Your task to perform on an android device: Show me the alarms in the clock app Image 0: 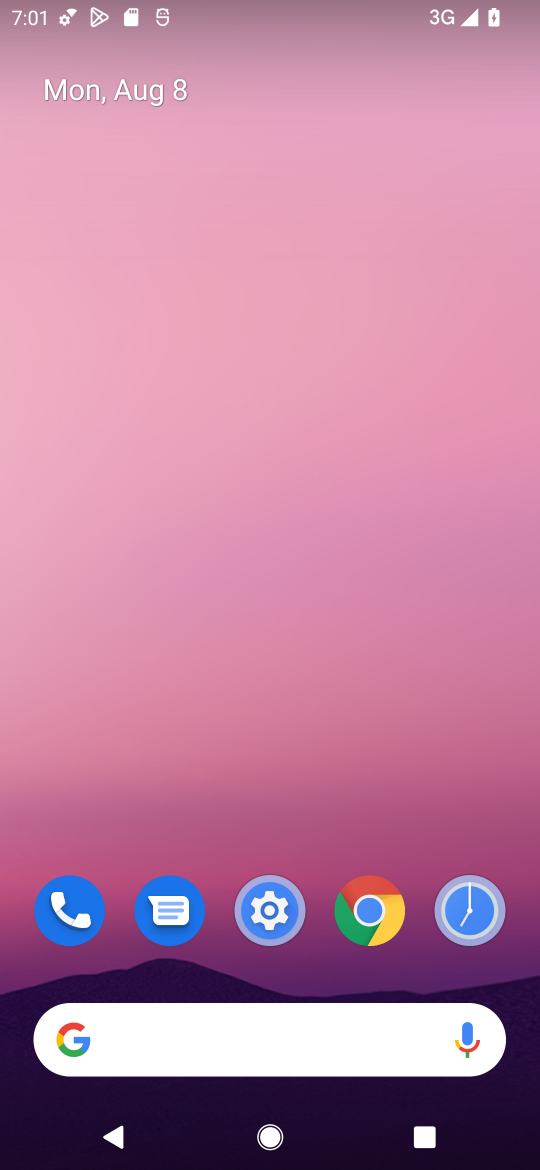
Step 0: click (469, 902)
Your task to perform on an android device: Show me the alarms in the clock app Image 1: 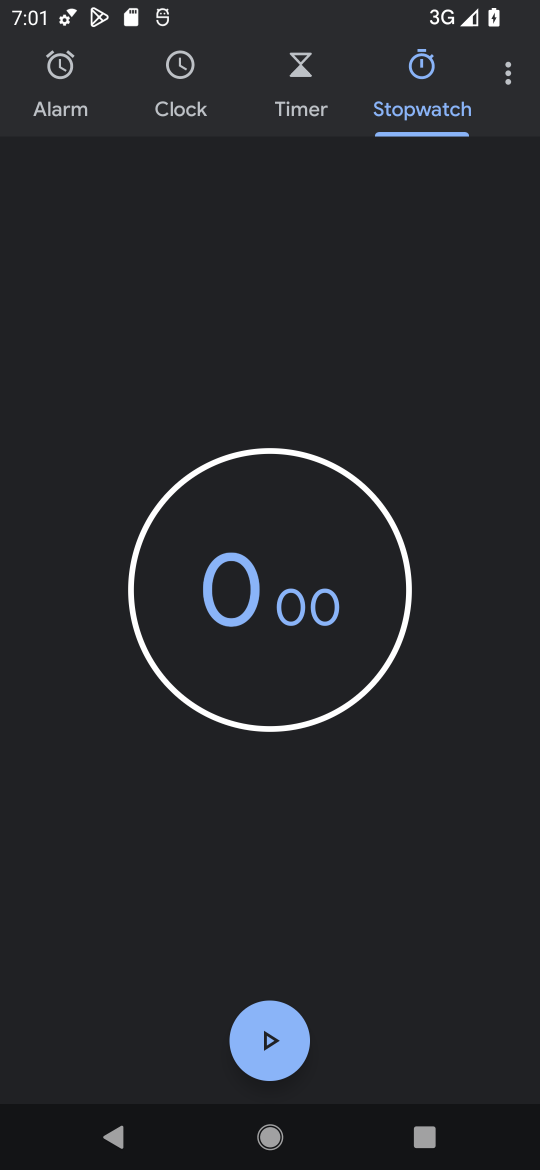
Step 1: click (497, 82)
Your task to perform on an android device: Show me the alarms in the clock app Image 2: 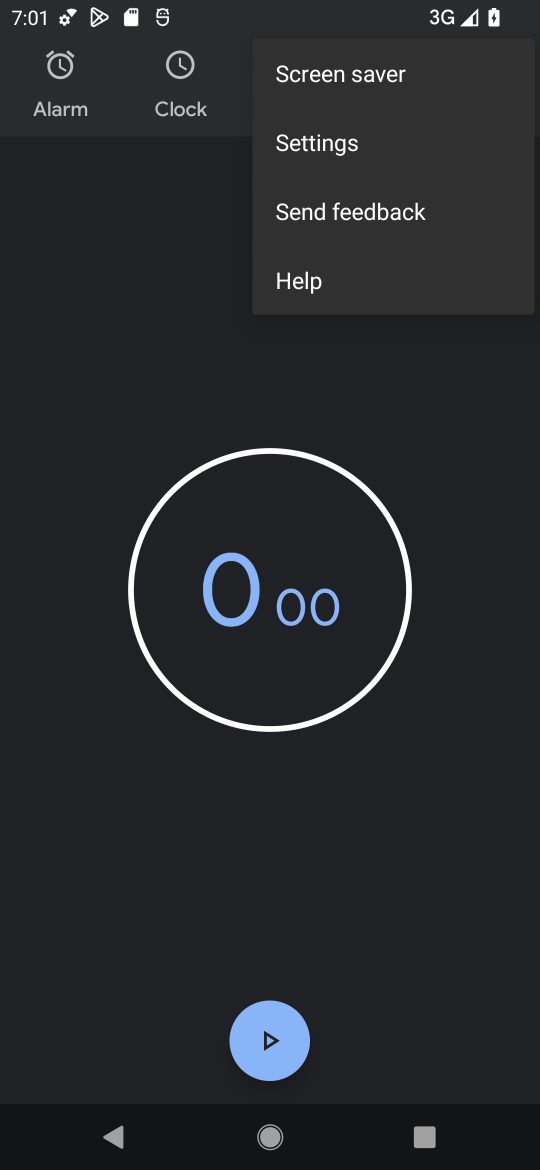
Step 2: click (336, 146)
Your task to perform on an android device: Show me the alarms in the clock app Image 3: 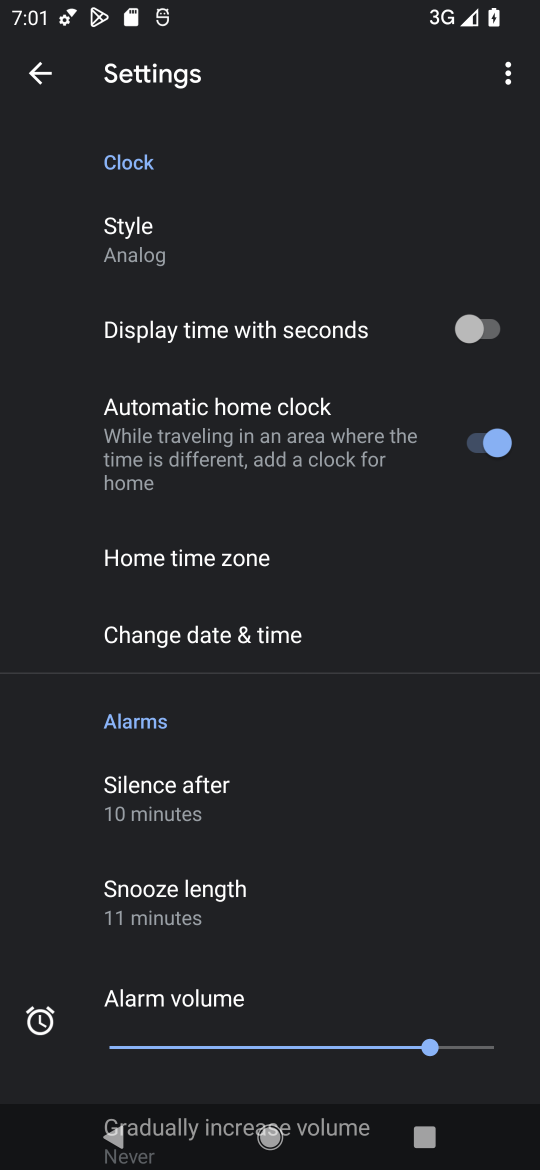
Step 3: click (28, 72)
Your task to perform on an android device: Show me the alarms in the clock app Image 4: 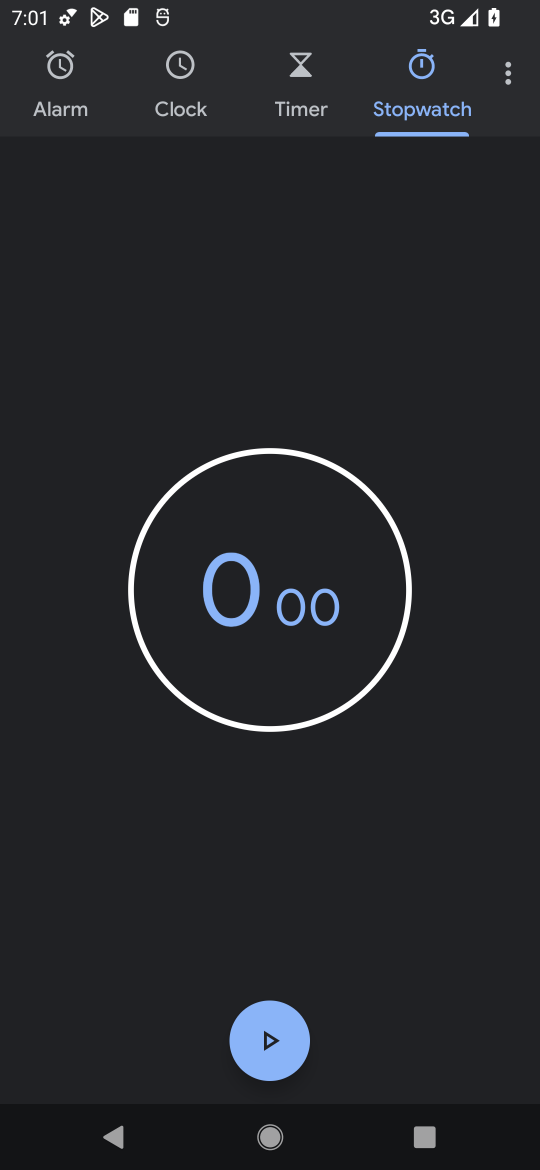
Step 4: click (61, 76)
Your task to perform on an android device: Show me the alarms in the clock app Image 5: 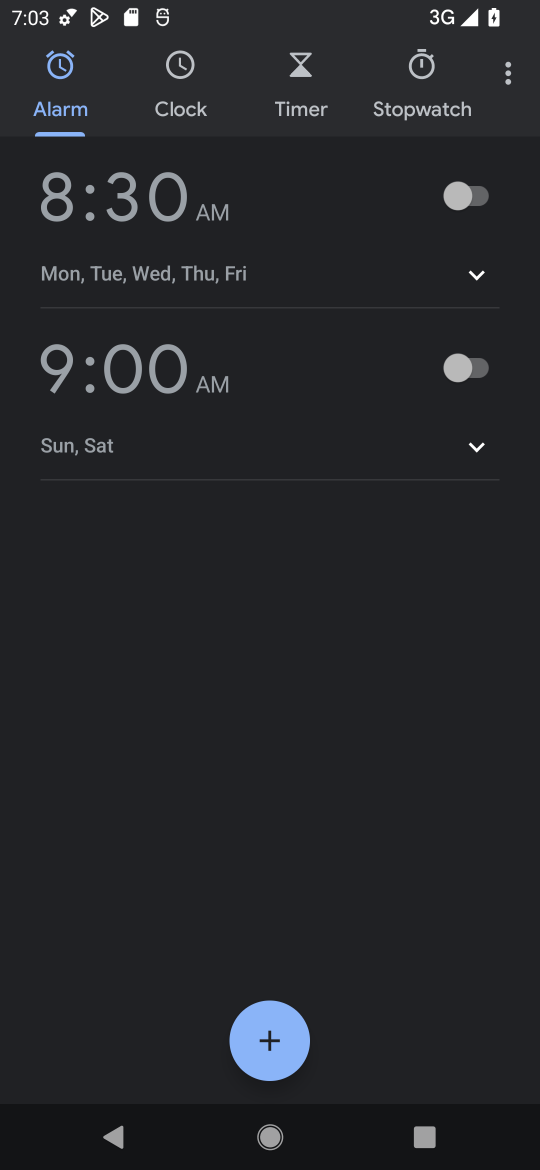
Step 5: task complete